Your task to perform on an android device: move a message to another label in the gmail app Image 0: 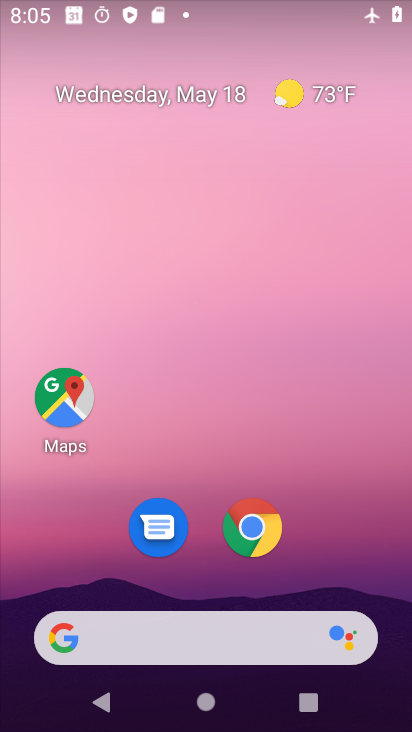
Step 0: drag from (385, 687) to (378, 62)
Your task to perform on an android device: move a message to another label in the gmail app Image 1: 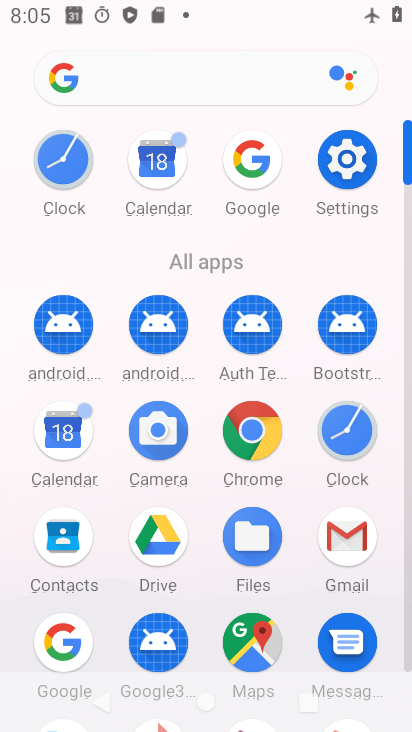
Step 1: click (359, 148)
Your task to perform on an android device: move a message to another label in the gmail app Image 2: 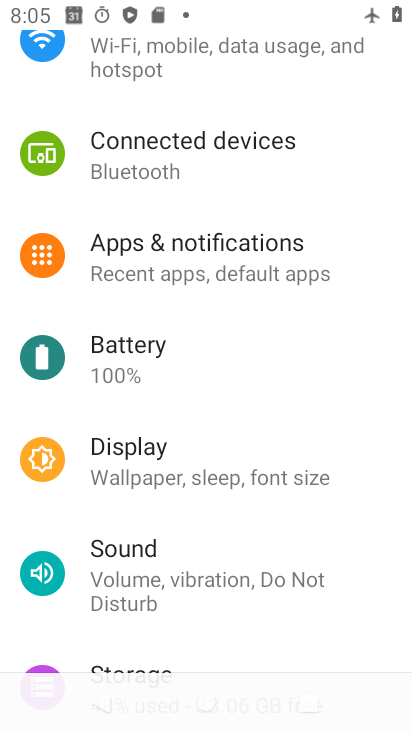
Step 2: click (149, 63)
Your task to perform on an android device: move a message to another label in the gmail app Image 3: 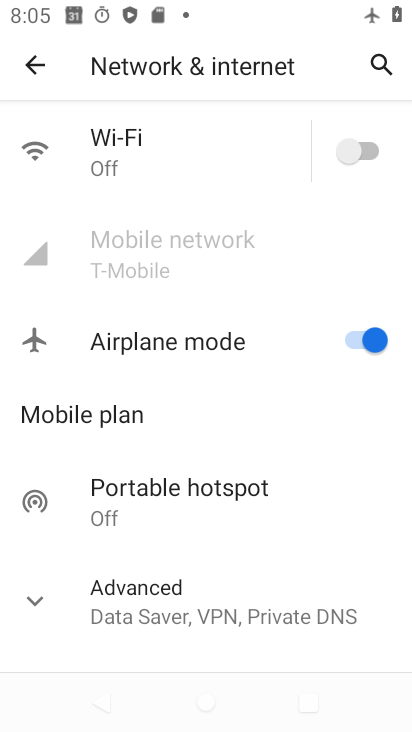
Step 3: click (355, 145)
Your task to perform on an android device: move a message to another label in the gmail app Image 4: 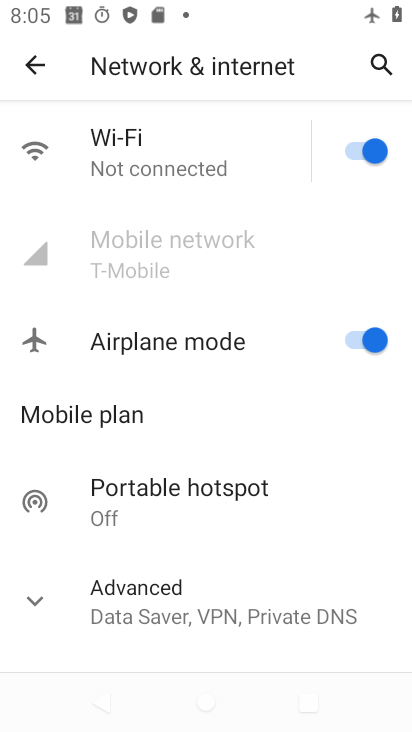
Step 4: click (356, 344)
Your task to perform on an android device: move a message to another label in the gmail app Image 5: 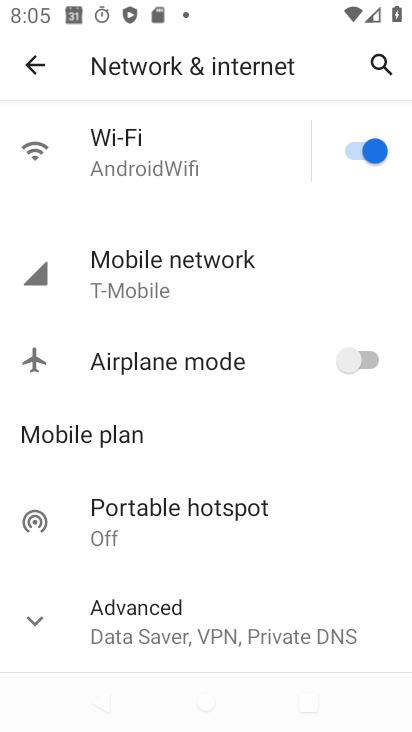
Step 5: click (39, 63)
Your task to perform on an android device: move a message to another label in the gmail app Image 6: 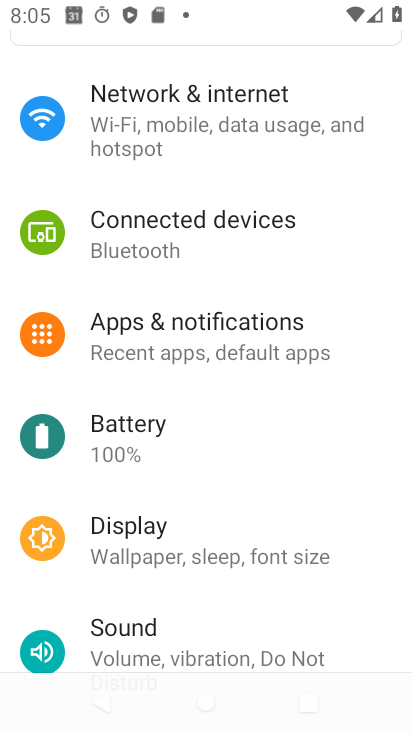
Step 6: press back button
Your task to perform on an android device: move a message to another label in the gmail app Image 7: 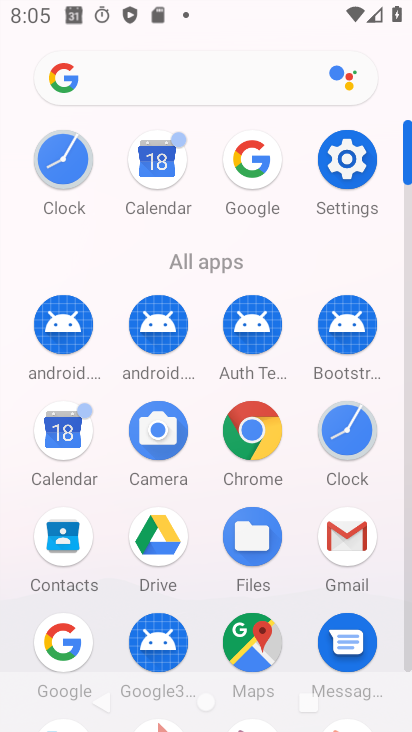
Step 7: click (352, 168)
Your task to perform on an android device: move a message to another label in the gmail app Image 8: 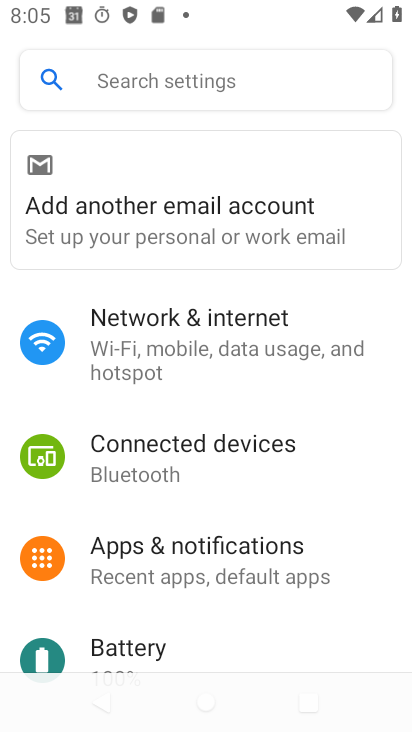
Step 8: press back button
Your task to perform on an android device: move a message to another label in the gmail app Image 9: 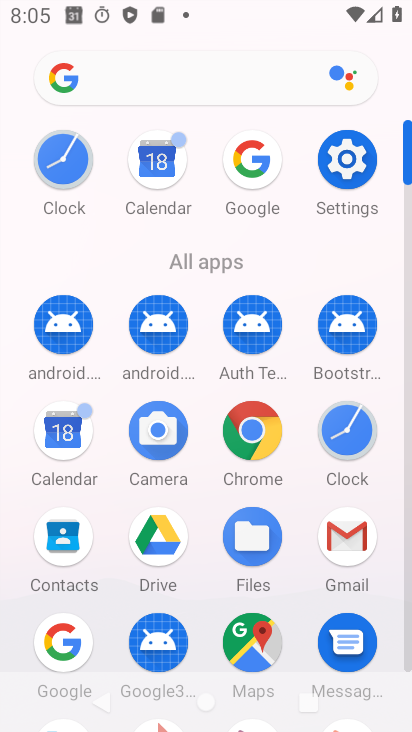
Step 9: click (341, 528)
Your task to perform on an android device: move a message to another label in the gmail app Image 10: 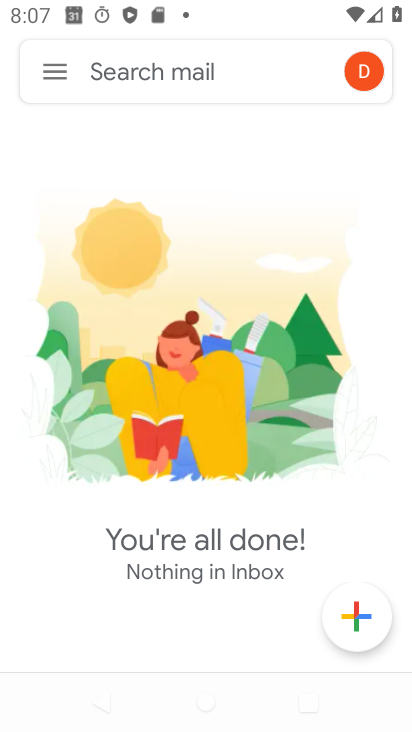
Step 10: click (60, 75)
Your task to perform on an android device: move a message to another label in the gmail app Image 11: 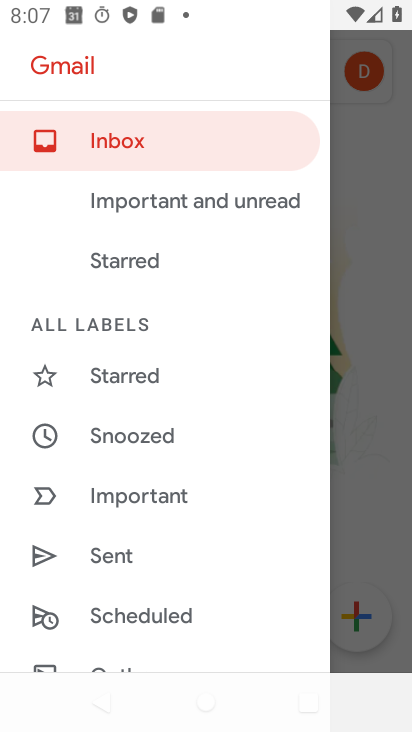
Step 11: click (148, 147)
Your task to perform on an android device: move a message to another label in the gmail app Image 12: 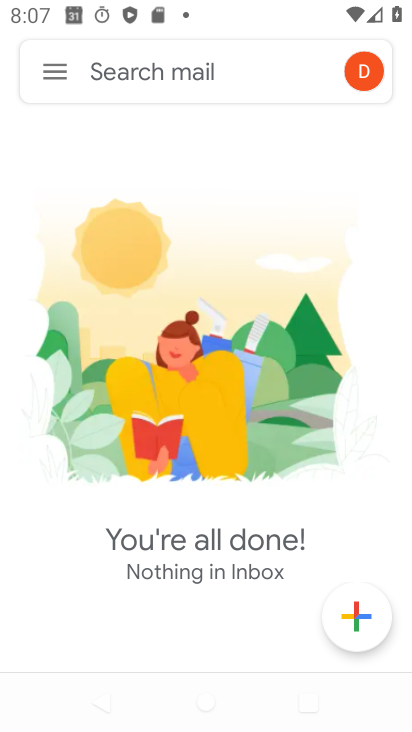
Step 12: task complete